Your task to perform on an android device: check storage Image 0: 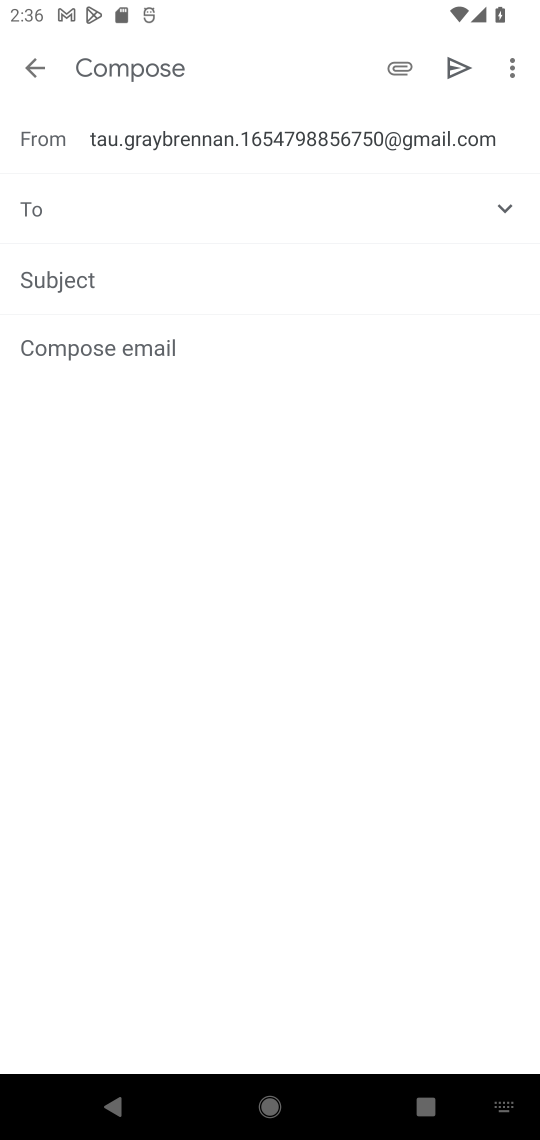
Step 0: press home button
Your task to perform on an android device: check storage Image 1: 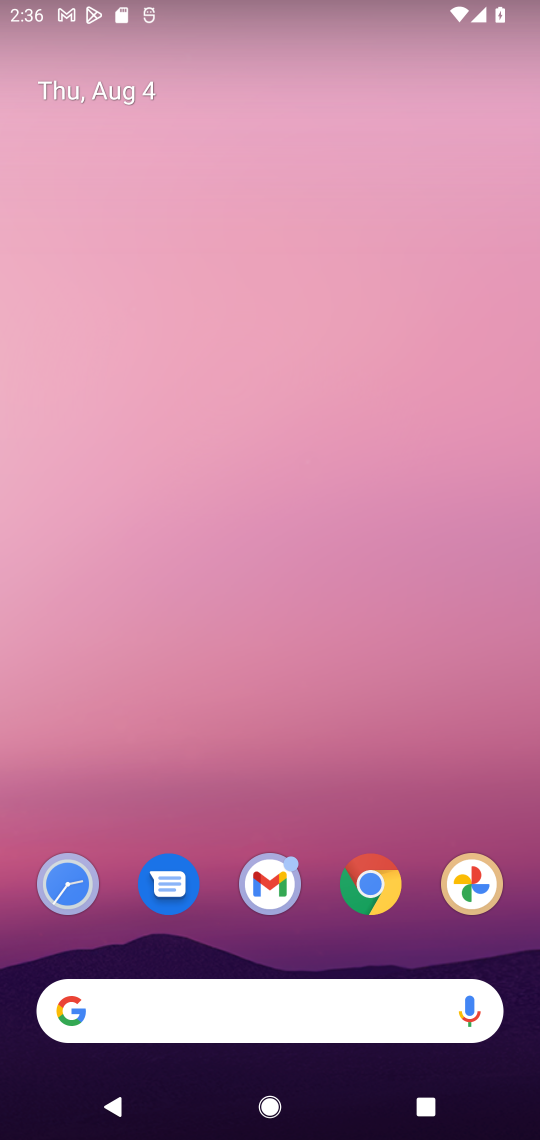
Step 1: drag from (317, 961) to (255, 111)
Your task to perform on an android device: check storage Image 2: 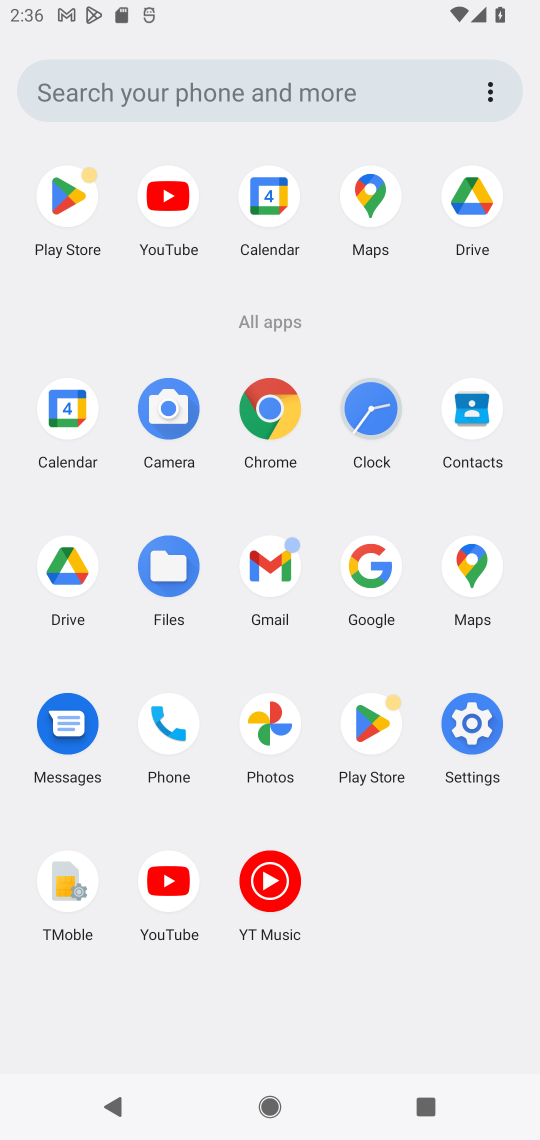
Step 2: click (471, 712)
Your task to perform on an android device: check storage Image 3: 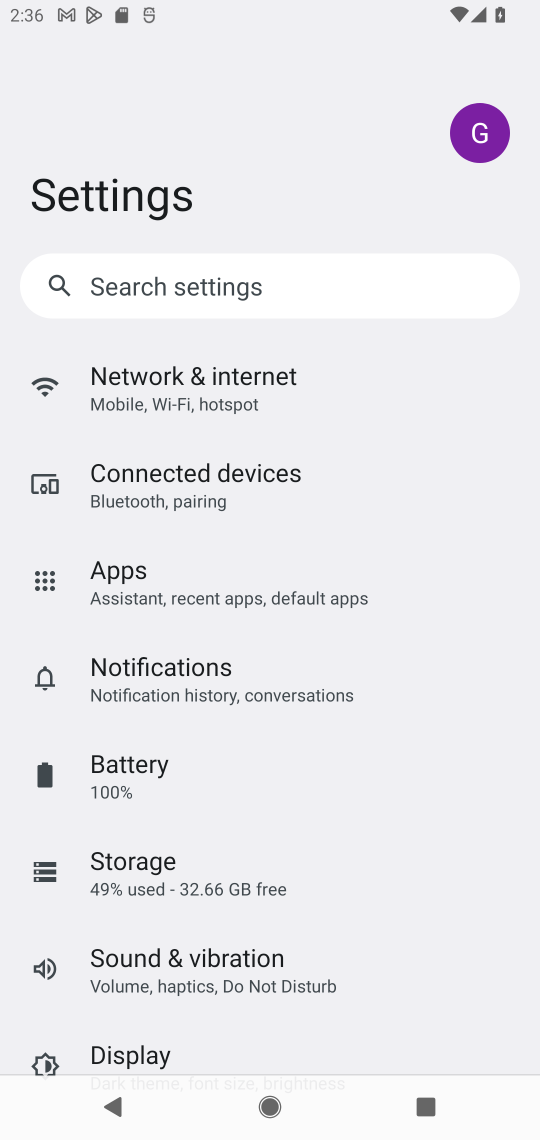
Step 3: click (275, 883)
Your task to perform on an android device: check storage Image 4: 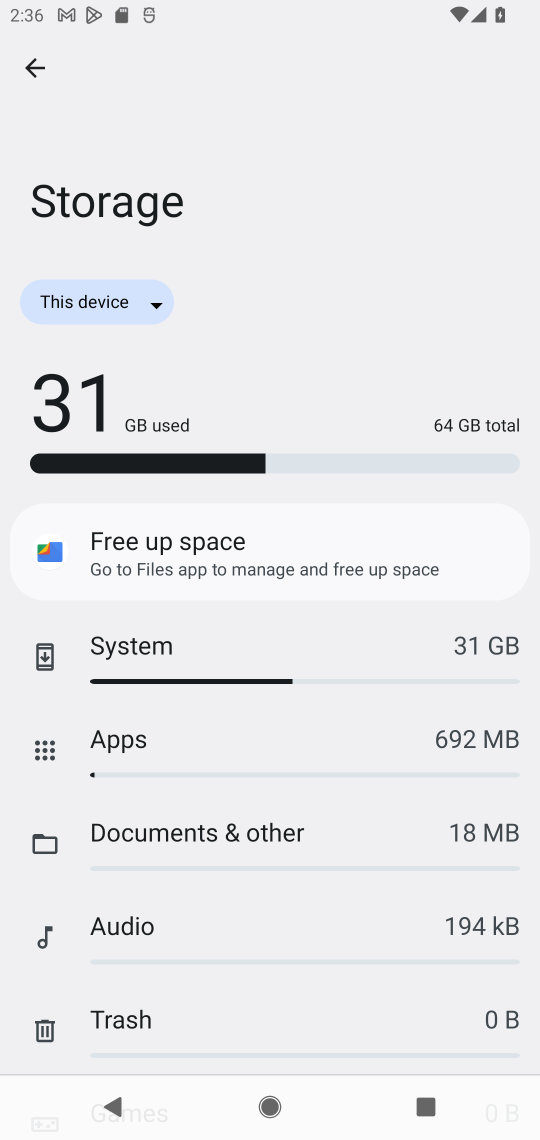
Step 4: task complete